Your task to perform on an android device: Open Google Chrome and open the bookmarks view Image 0: 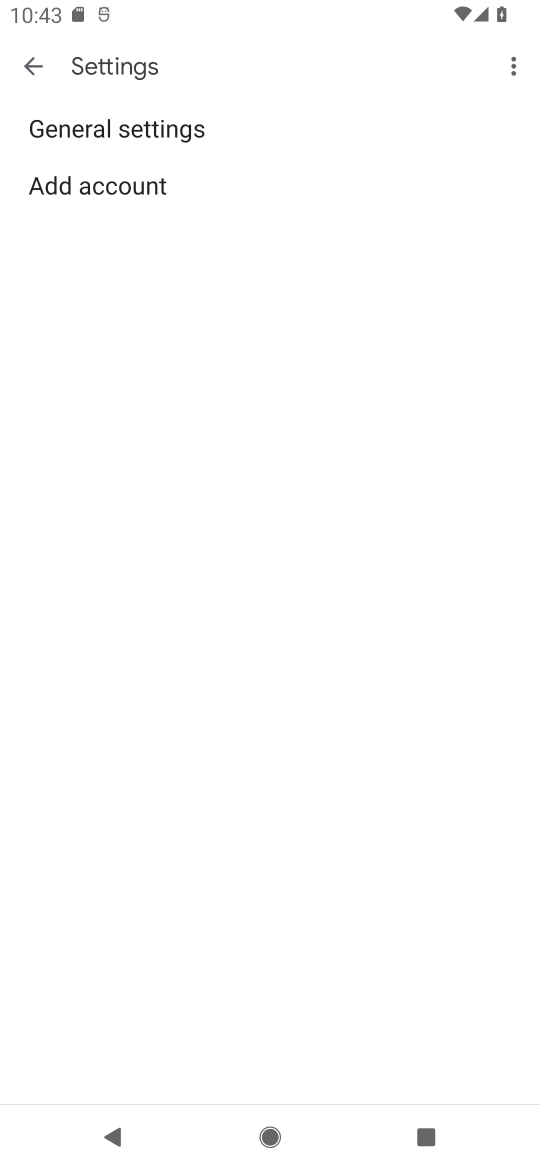
Step 0: press home button
Your task to perform on an android device: Open Google Chrome and open the bookmarks view Image 1: 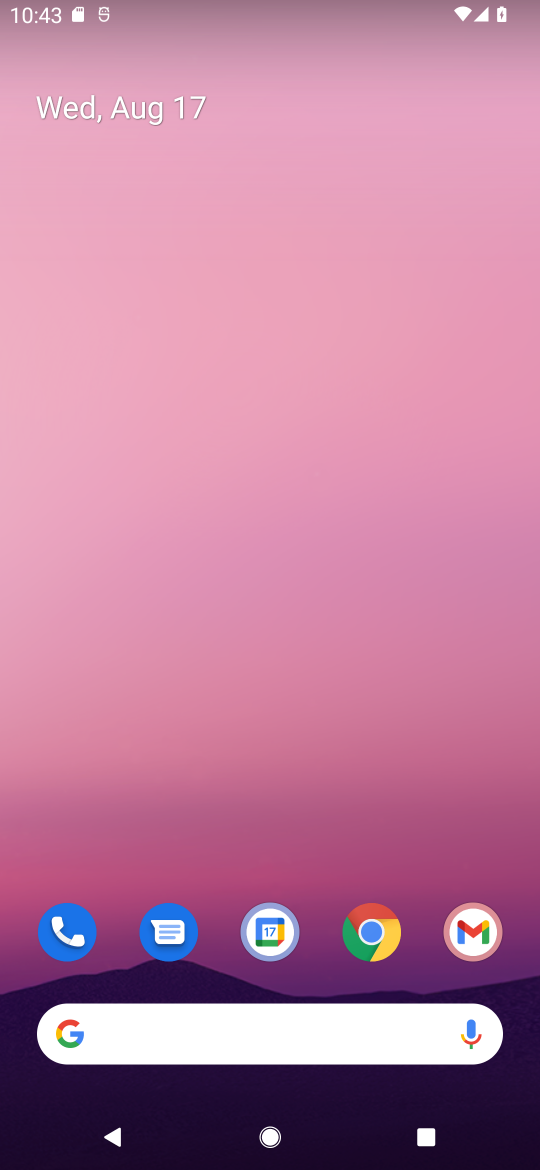
Step 1: click (368, 935)
Your task to perform on an android device: Open Google Chrome and open the bookmarks view Image 2: 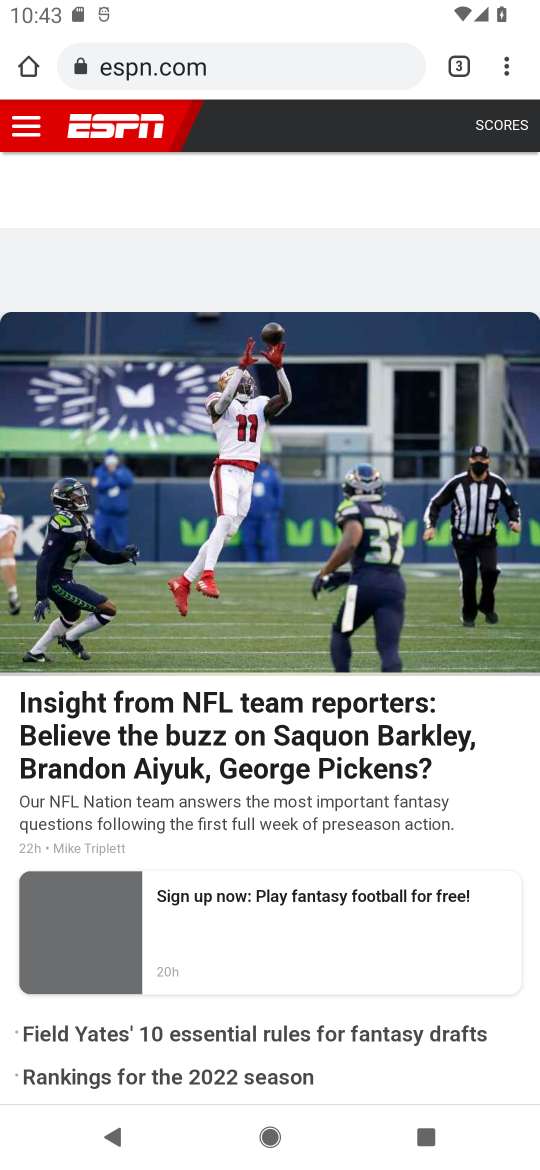
Step 2: click (506, 75)
Your task to perform on an android device: Open Google Chrome and open the bookmarks view Image 3: 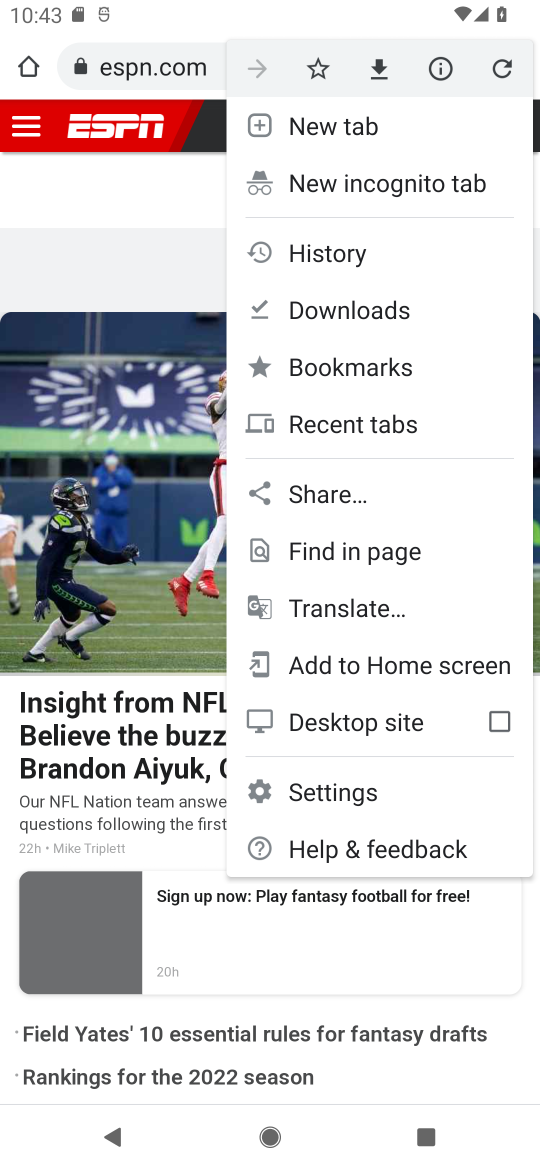
Step 3: click (305, 362)
Your task to perform on an android device: Open Google Chrome and open the bookmarks view Image 4: 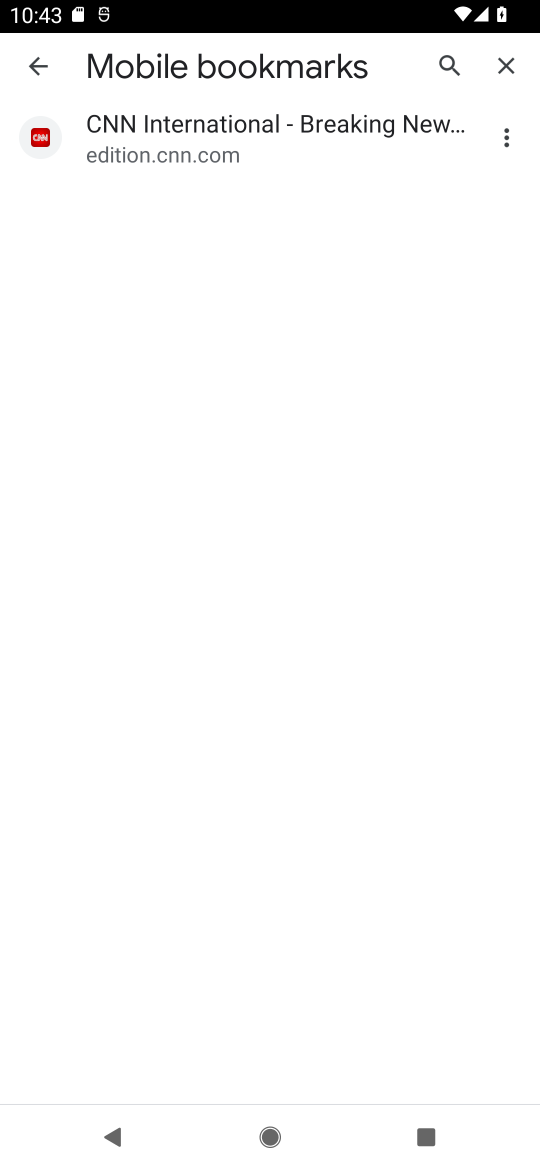
Step 4: task complete